Your task to perform on an android device: visit the assistant section in the google photos Image 0: 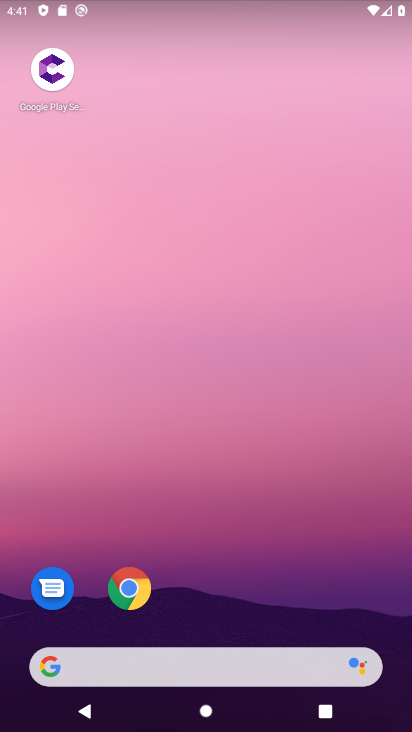
Step 0: drag from (201, 523) to (179, 164)
Your task to perform on an android device: visit the assistant section in the google photos Image 1: 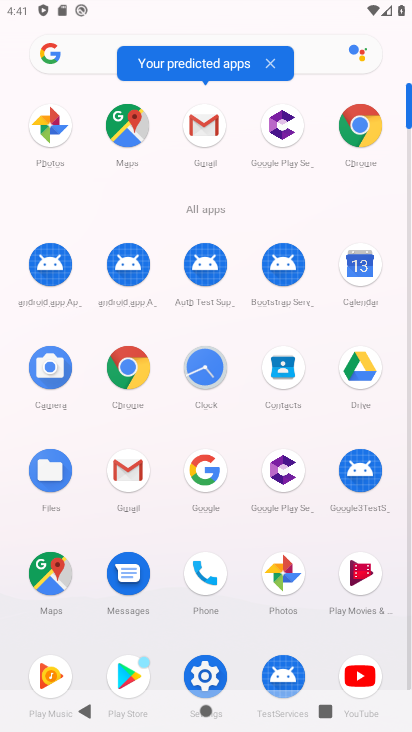
Step 1: click (50, 115)
Your task to perform on an android device: visit the assistant section in the google photos Image 2: 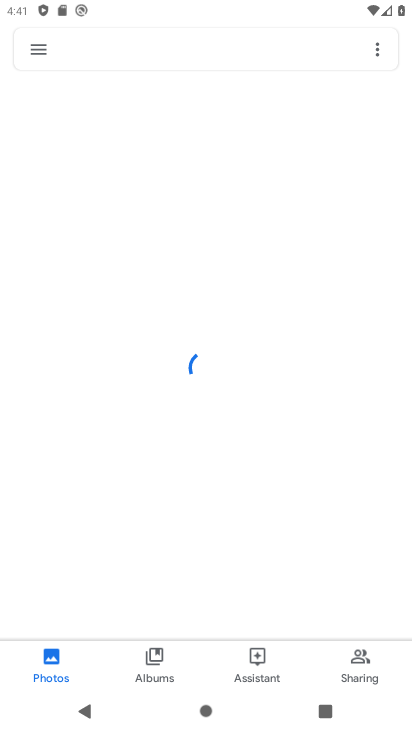
Step 2: click (256, 661)
Your task to perform on an android device: visit the assistant section in the google photos Image 3: 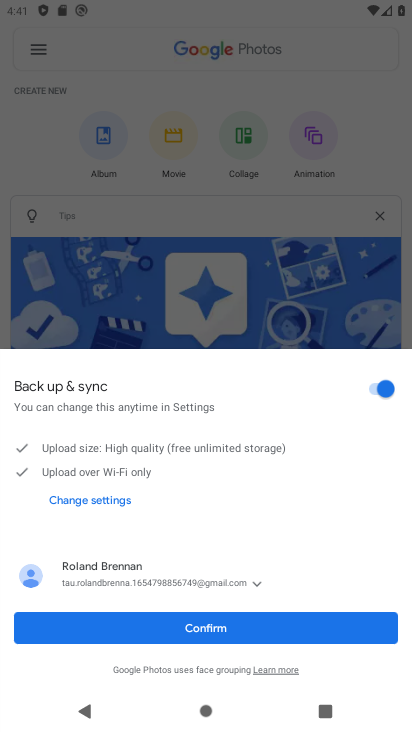
Step 3: click (225, 617)
Your task to perform on an android device: visit the assistant section in the google photos Image 4: 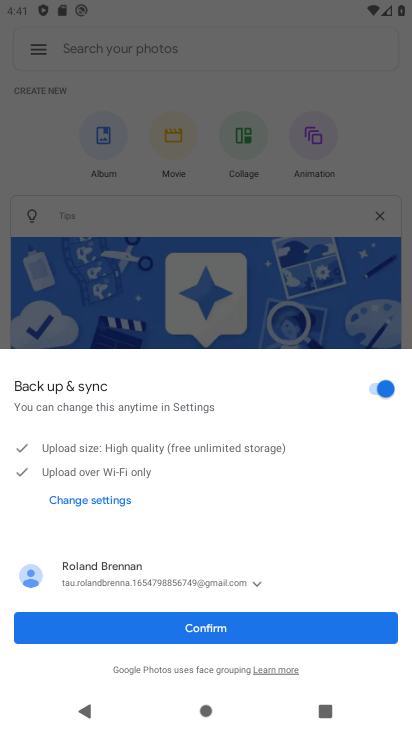
Step 4: task complete